Your task to perform on an android device: toggle pop-ups in chrome Image 0: 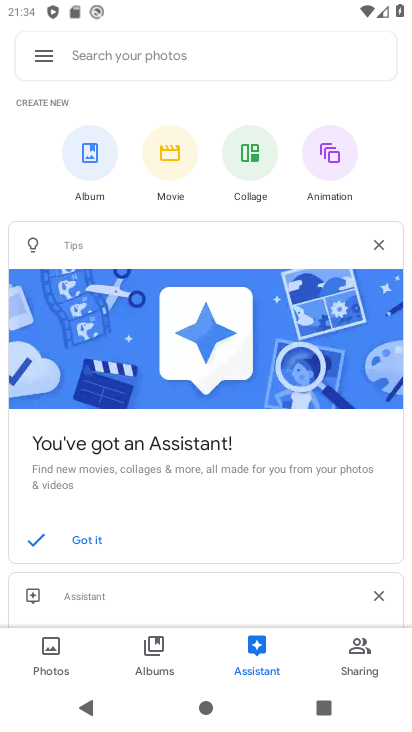
Step 0: press home button
Your task to perform on an android device: toggle pop-ups in chrome Image 1: 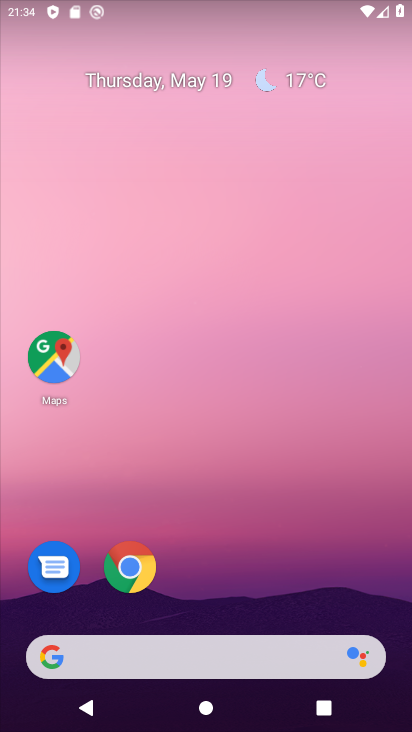
Step 1: click (140, 559)
Your task to perform on an android device: toggle pop-ups in chrome Image 2: 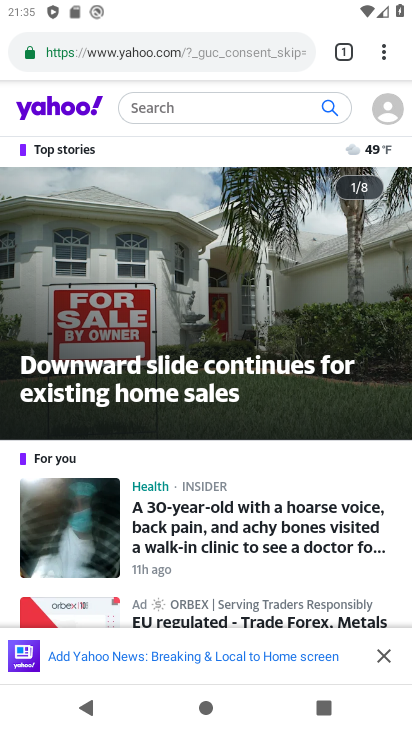
Step 2: click (380, 46)
Your task to perform on an android device: toggle pop-ups in chrome Image 3: 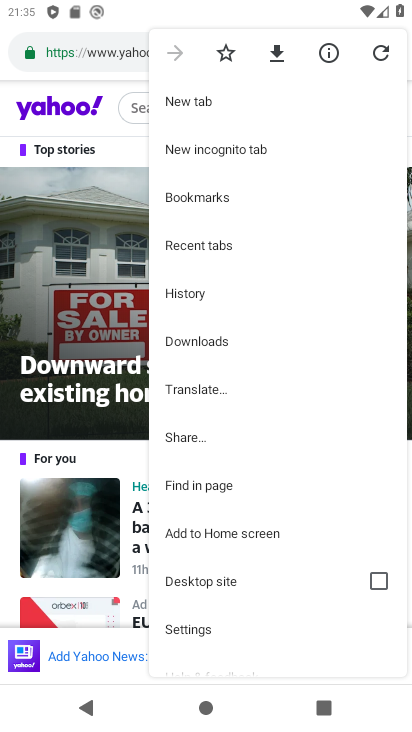
Step 3: click (213, 623)
Your task to perform on an android device: toggle pop-ups in chrome Image 4: 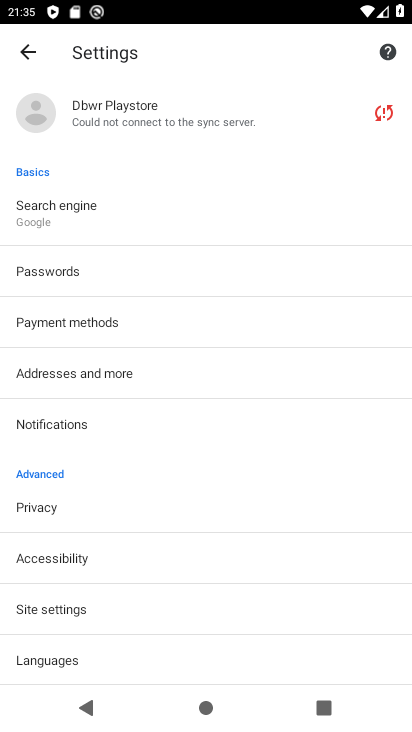
Step 4: click (331, 615)
Your task to perform on an android device: toggle pop-ups in chrome Image 5: 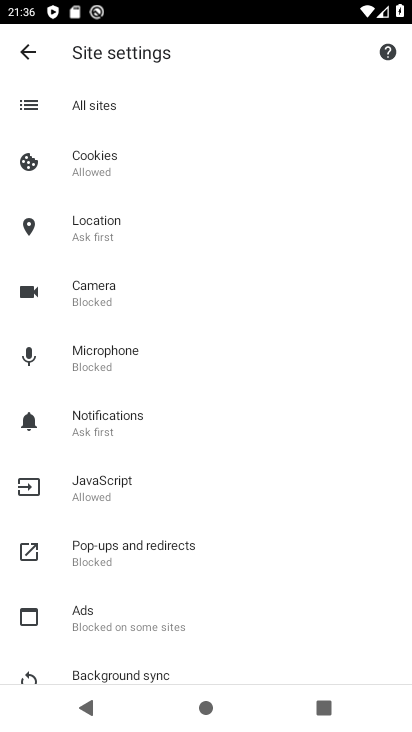
Step 5: click (206, 564)
Your task to perform on an android device: toggle pop-ups in chrome Image 6: 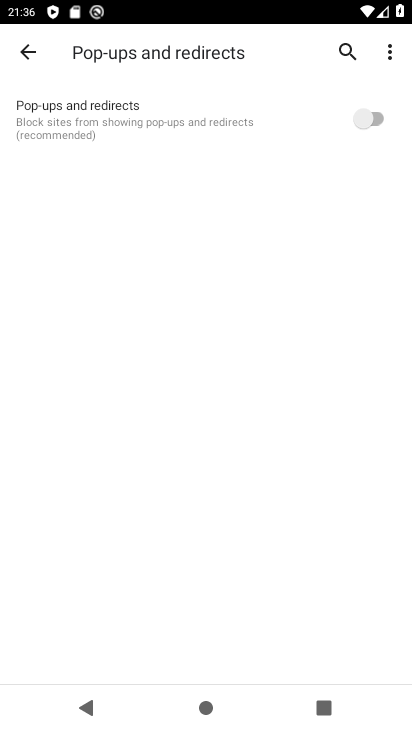
Step 6: click (373, 123)
Your task to perform on an android device: toggle pop-ups in chrome Image 7: 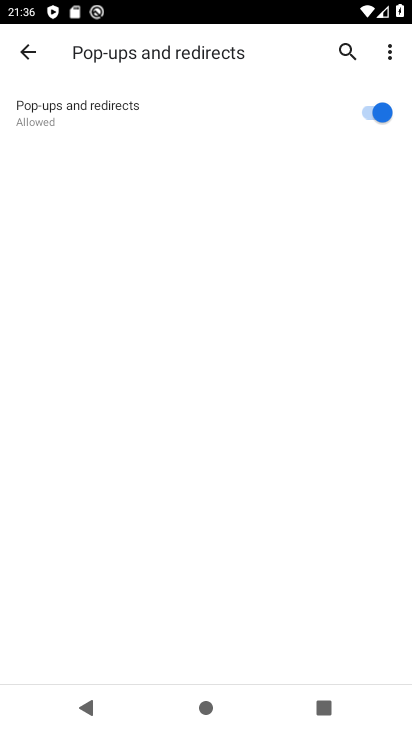
Step 7: task complete